Your task to perform on an android device: Open notification settings Image 0: 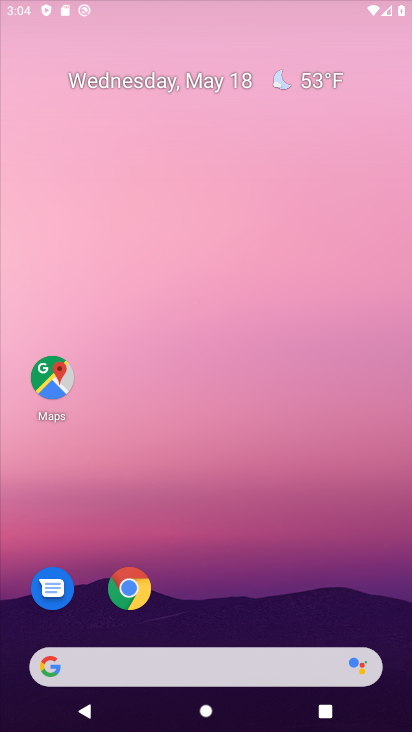
Step 0: press home button
Your task to perform on an android device: Open notification settings Image 1: 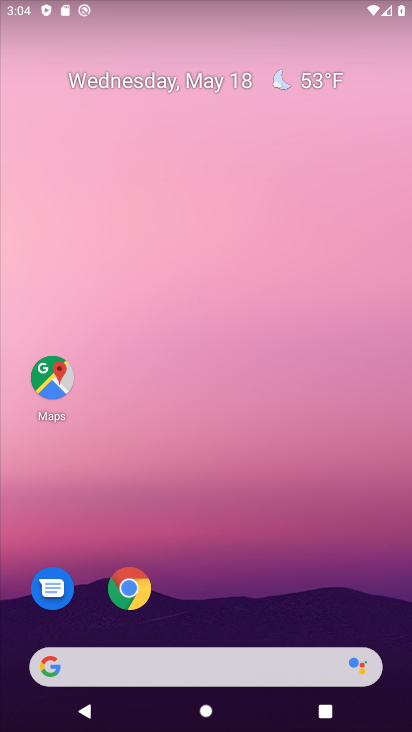
Step 1: drag from (286, 596) to (306, 68)
Your task to perform on an android device: Open notification settings Image 2: 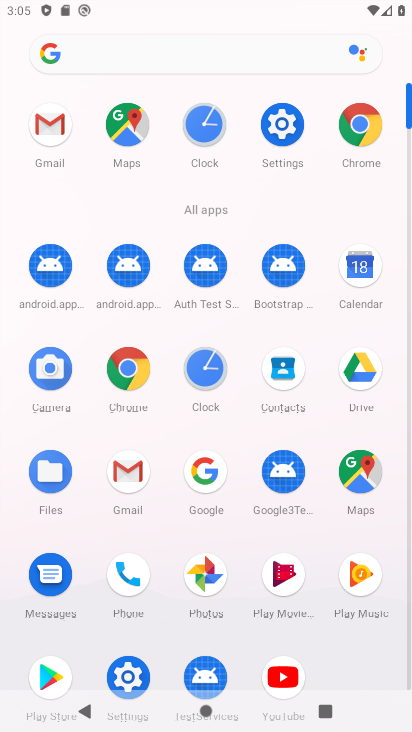
Step 2: click (134, 676)
Your task to perform on an android device: Open notification settings Image 3: 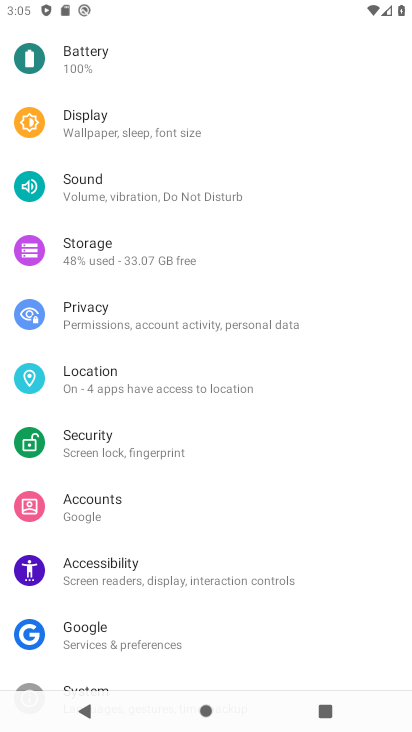
Step 3: drag from (132, 173) to (157, 718)
Your task to perform on an android device: Open notification settings Image 4: 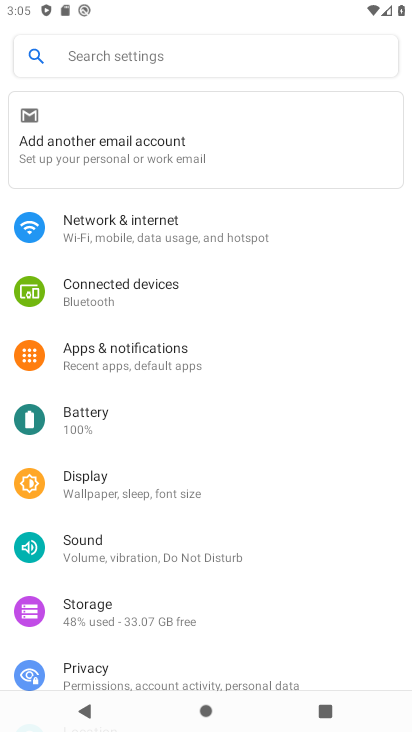
Step 4: click (150, 364)
Your task to perform on an android device: Open notification settings Image 5: 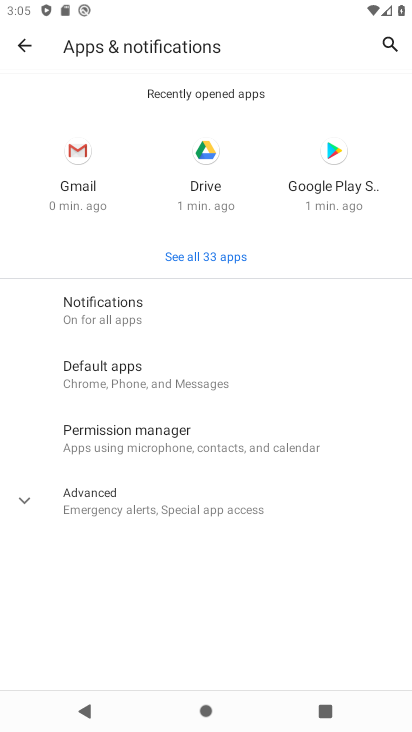
Step 5: task complete